Your task to perform on an android device: turn on improve location accuracy Image 0: 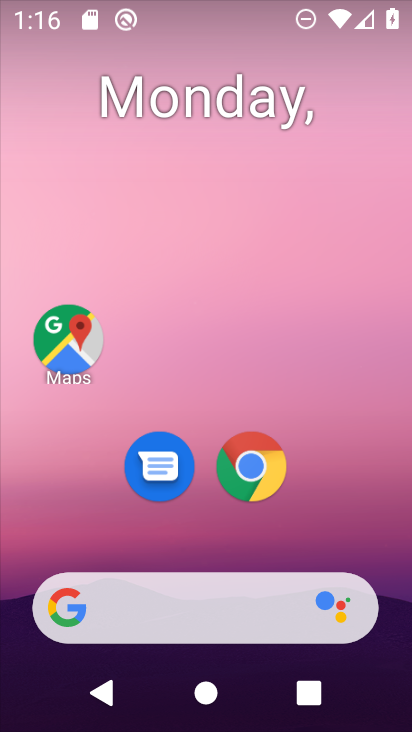
Step 0: drag from (218, 541) to (288, 24)
Your task to perform on an android device: turn on improve location accuracy Image 1: 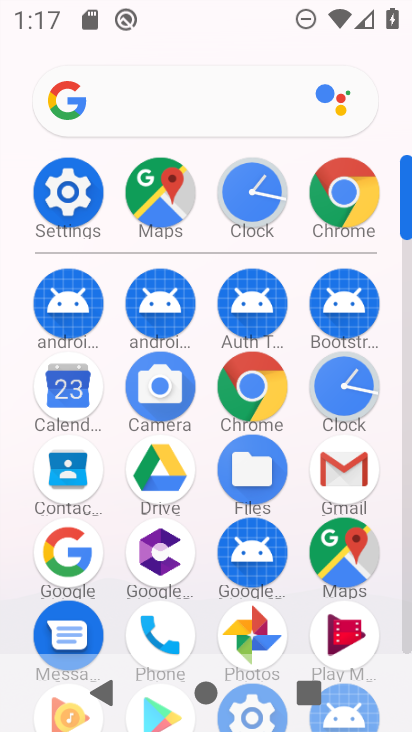
Step 1: click (66, 188)
Your task to perform on an android device: turn on improve location accuracy Image 2: 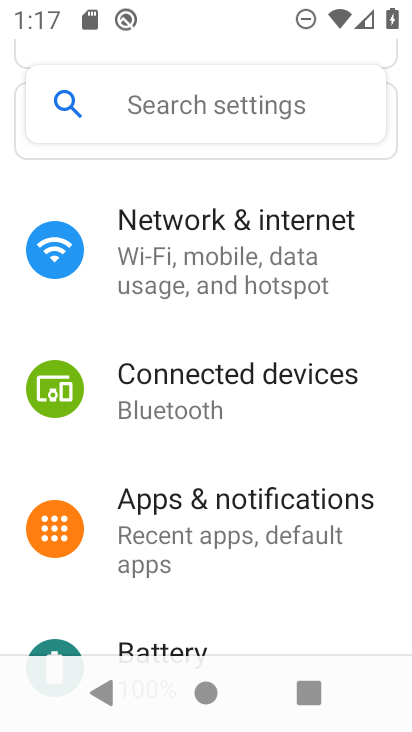
Step 2: drag from (232, 557) to (275, 232)
Your task to perform on an android device: turn on improve location accuracy Image 3: 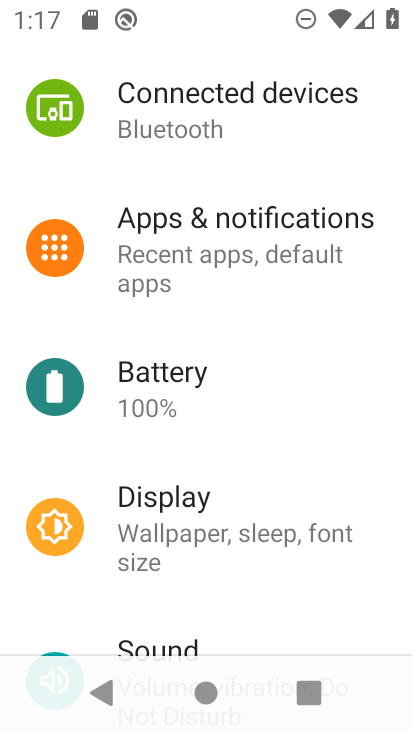
Step 3: drag from (203, 537) to (257, 179)
Your task to perform on an android device: turn on improve location accuracy Image 4: 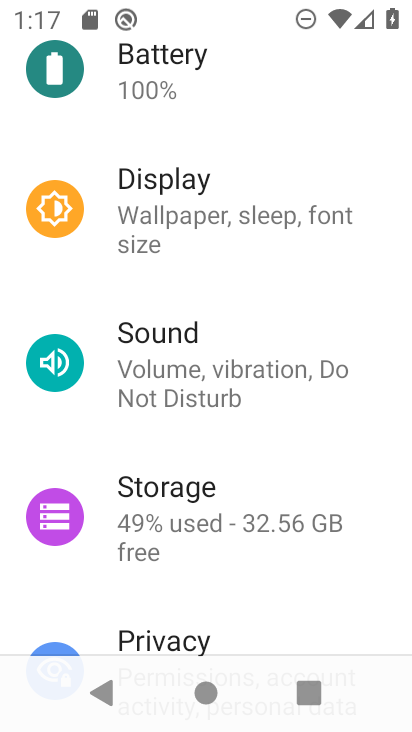
Step 4: drag from (185, 569) to (217, 218)
Your task to perform on an android device: turn on improve location accuracy Image 5: 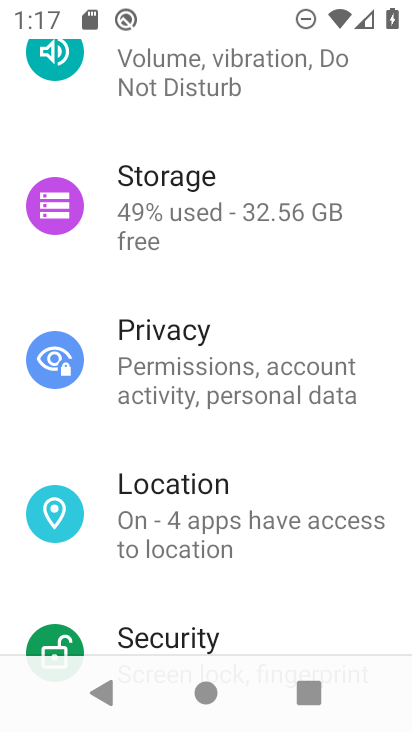
Step 5: click (170, 513)
Your task to perform on an android device: turn on improve location accuracy Image 6: 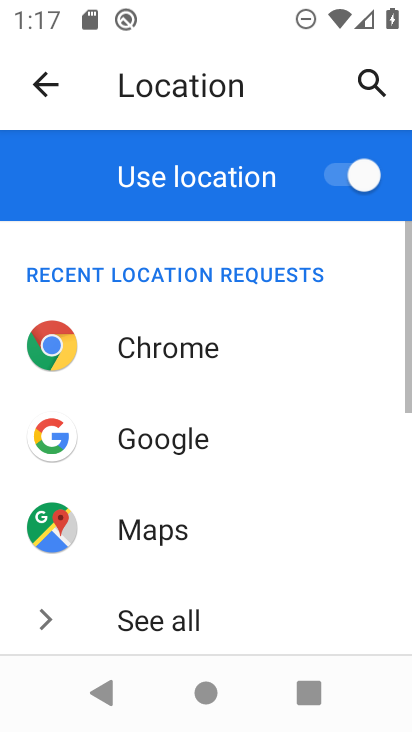
Step 6: task complete